Your task to perform on an android device: turn off location history Image 0: 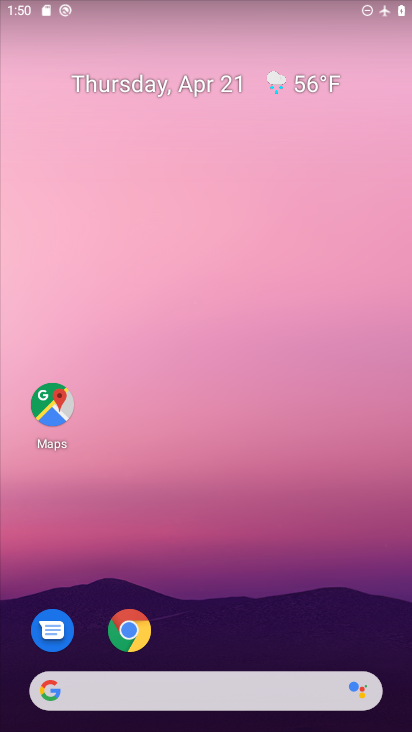
Step 0: drag from (223, 688) to (388, 18)
Your task to perform on an android device: turn off location history Image 1: 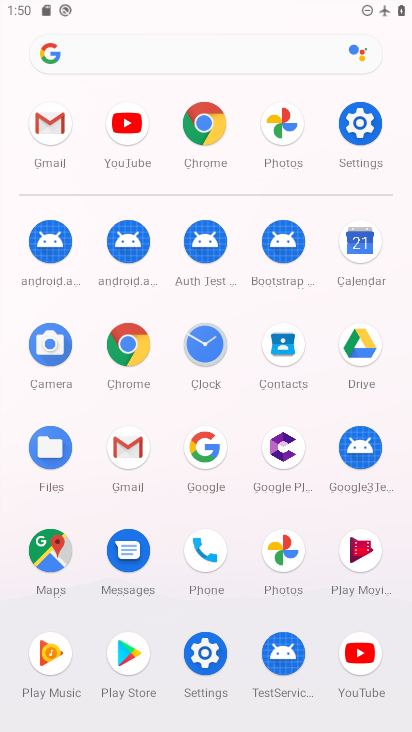
Step 1: click (361, 138)
Your task to perform on an android device: turn off location history Image 2: 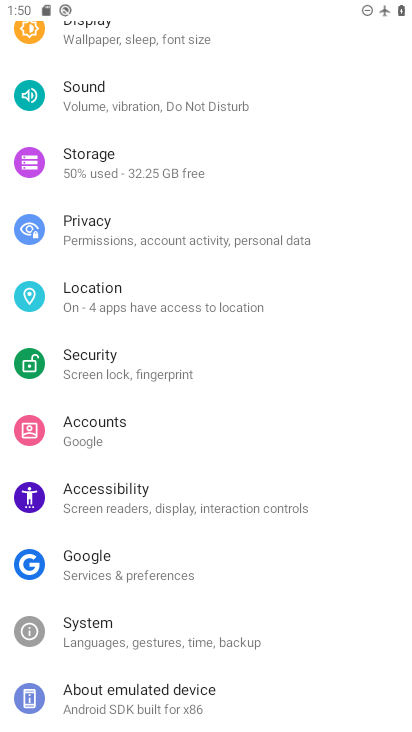
Step 2: click (111, 298)
Your task to perform on an android device: turn off location history Image 3: 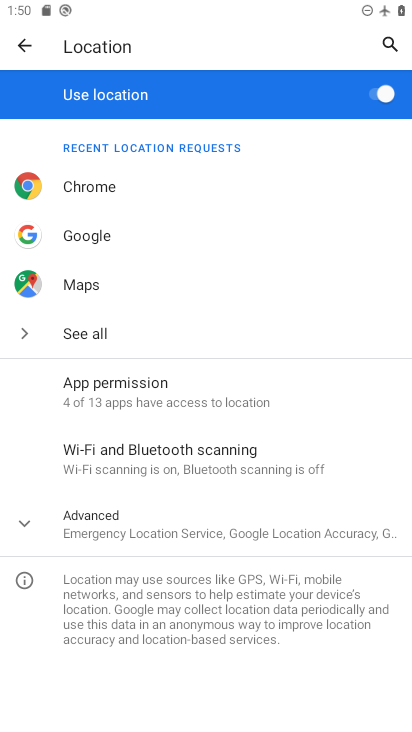
Step 3: click (141, 524)
Your task to perform on an android device: turn off location history Image 4: 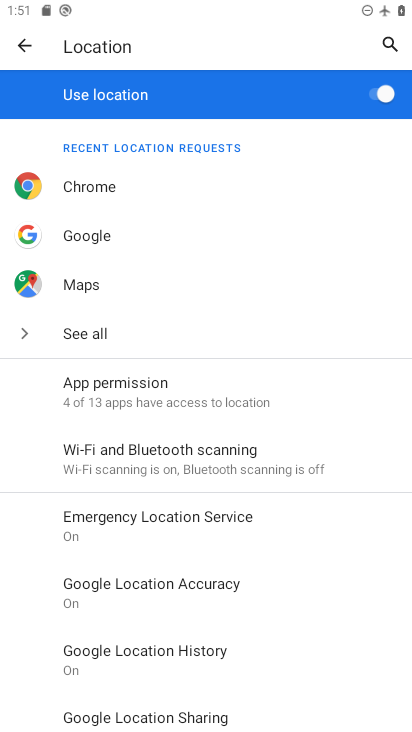
Step 4: click (201, 645)
Your task to perform on an android device: turn off location history Image 5: 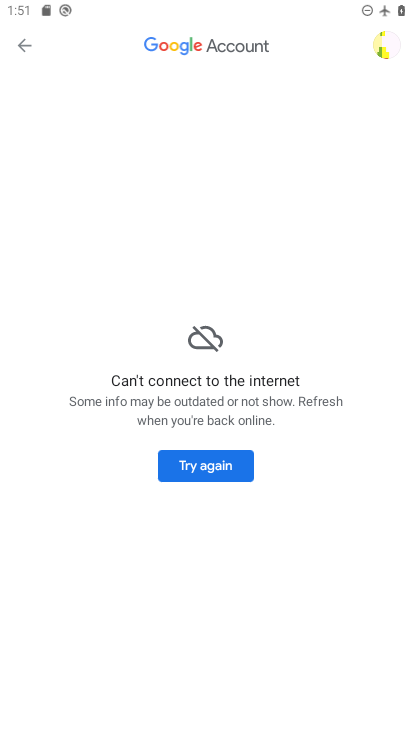
Step 5: task complete